Your task to perform on an android device: toggle improve location accuracy Image 0: 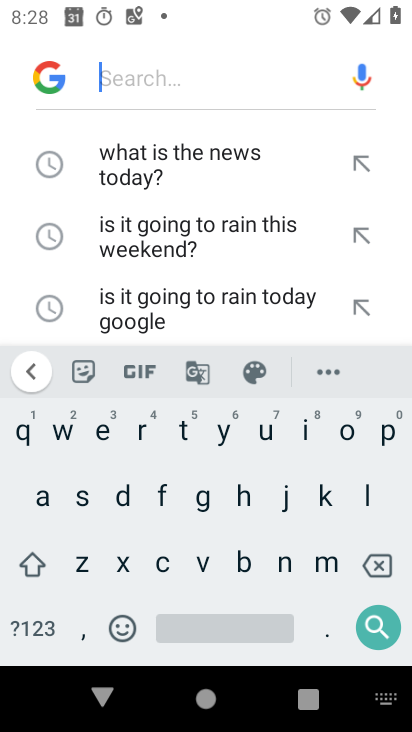
Step 0: press home button
Your task to perform on an android device: toggle improve location accuracy Image 1: 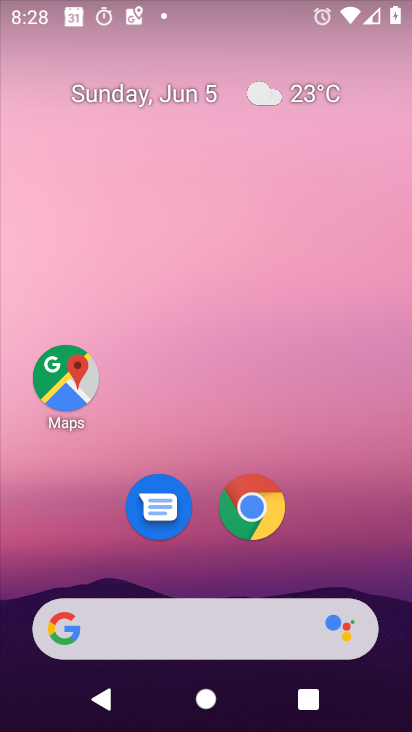
Step 1: drag from (268, 659) to (172, 61)
Your task to perform on an android device: toggle improve location accuracy Image 2: 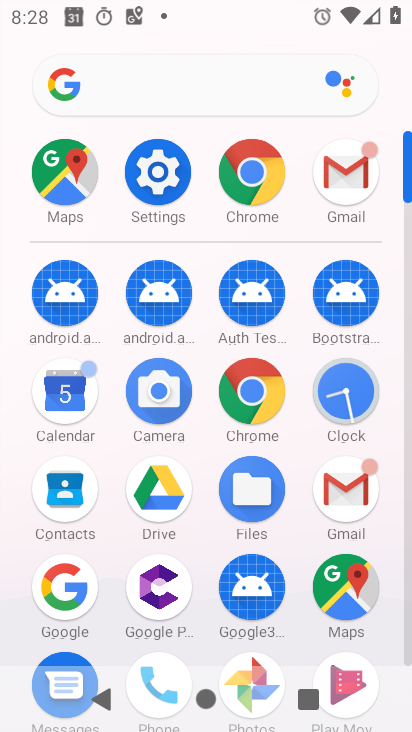
Step 2: click (177, 185)
Your task to perform on an android device: toggle improve location accuracy Image 3: 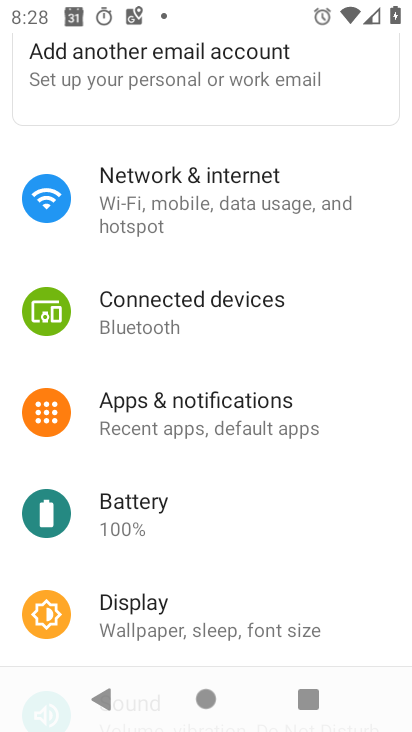
Step 3: drag from (127, 156) to (152, 256)
Your task to perform on an android device: toggle improve location accuracy Image 4: 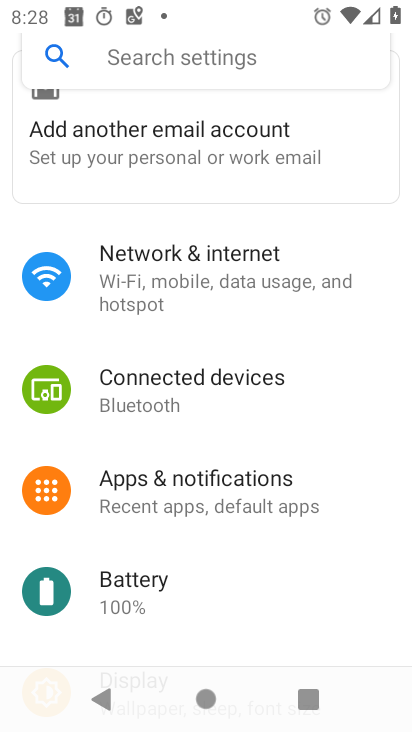
Step 4: click (156, 47)
Your task to perform on an android device: toggle improve location accuracy Image 5: 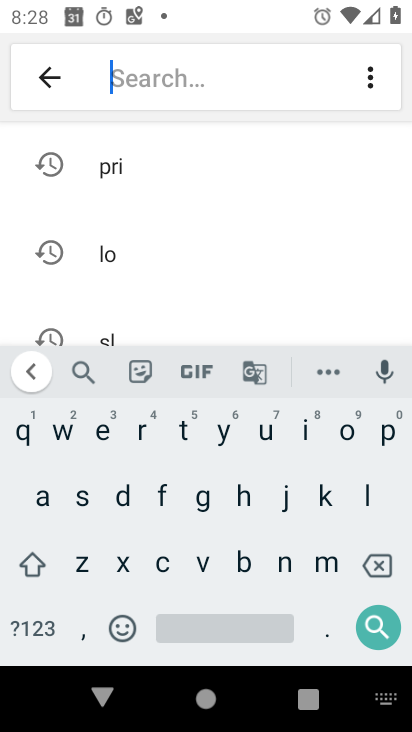
Step 5: click (363, 479)
Your task to perform on an android device: toggle improve location accuracy Image 6: 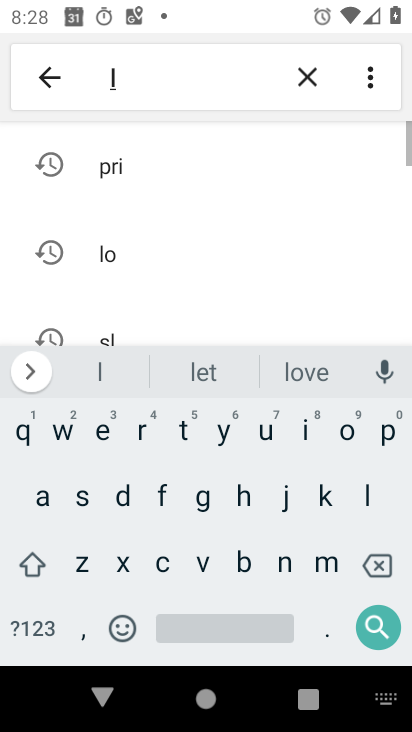
Step 6: click (342, 432)
Your task to perform on an android device: toggle improve location accuracy Image 7: 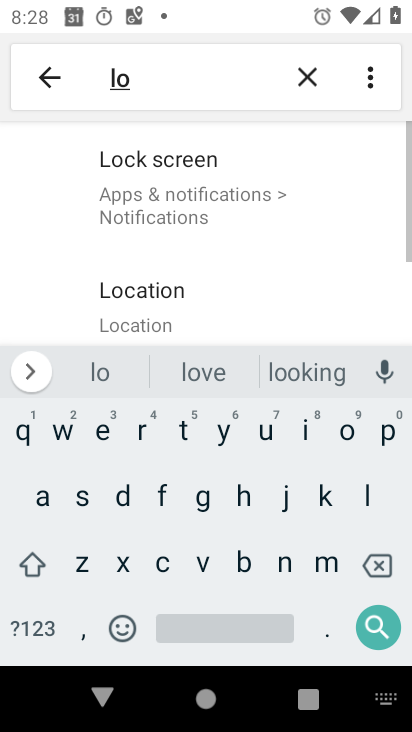
Step 7: click (171, 294)
Your task to perform on an android device: toggle improve location accuracy Image 8: 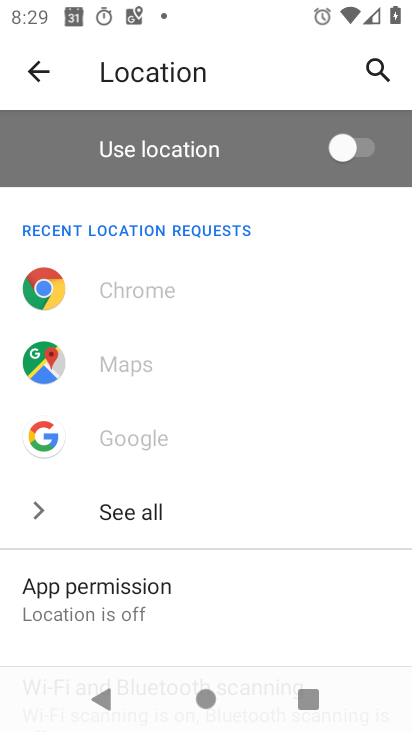
Step 8: drag from (183, 563) to (204, 322)
Your task to perform on an android device: toggle improve location accuracy Image 9: 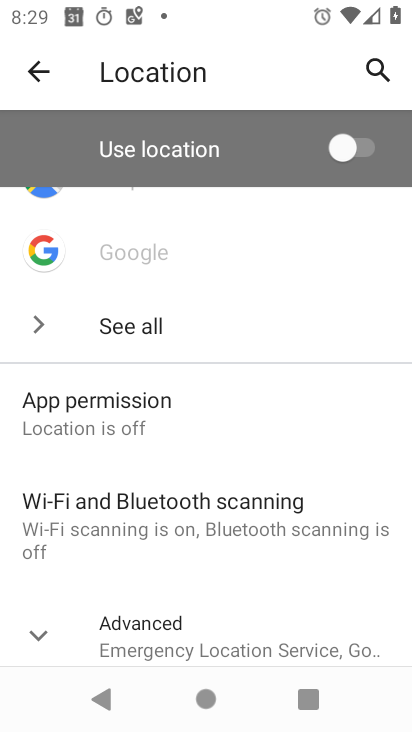
Step 9: click (30, 629)
Your task to perform on an android device: toggle improve location accuracy Image 10: 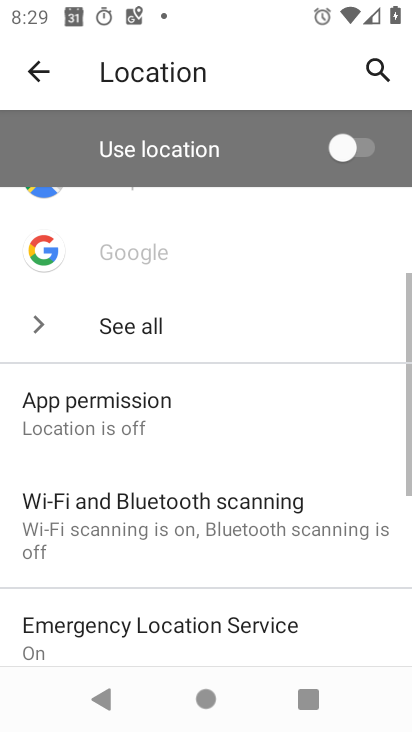
Step 10: drag from (134, 576) to (145, 281)
Your task to perform on an android device: toggle improve location accuracy Image 11: 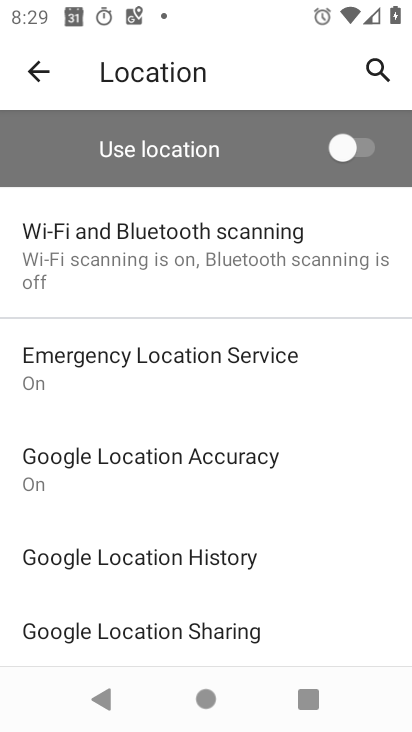
Step 11: click (181, 443)
Your task to perform on an android device: toggle improve location accuracy Image 12: 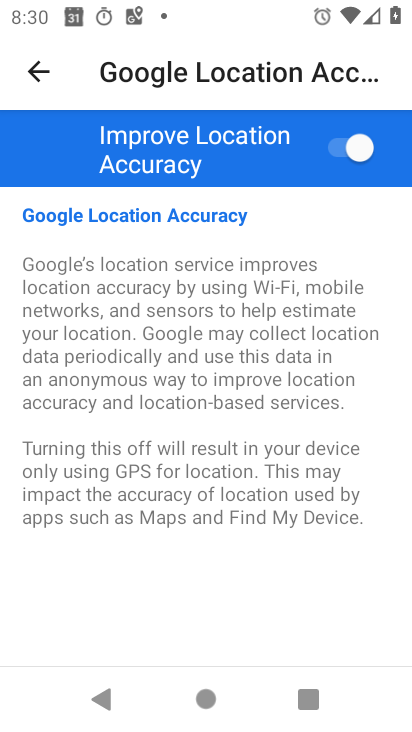
Step 12: task complete